Your task to perform on an android device: Open Wikipedia Image 0: 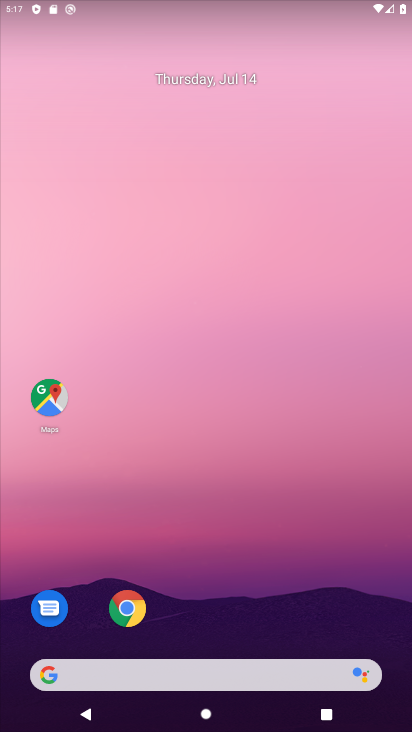
Step 0: click (131, 610)
Your task to perform on an android device: Open Wikipedia Image 1: 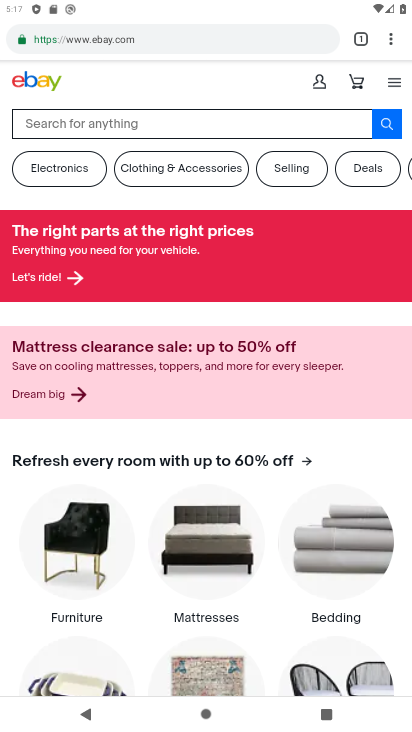
Step 1: click (236, 44)
Your task to perform on an android device: Open Wikipedia Image 2: 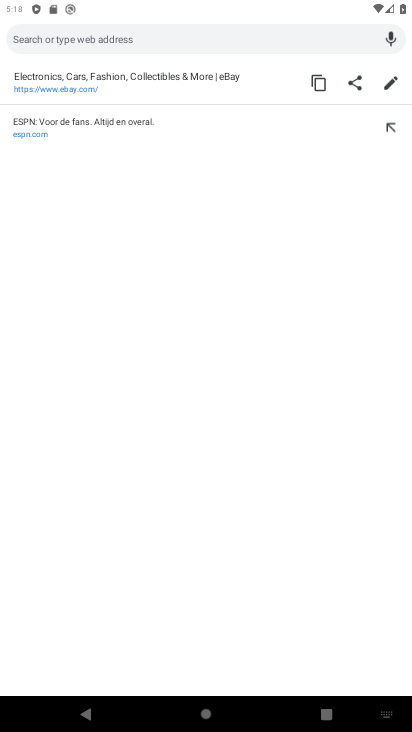
Step 2: type "Wikipedia"
Your task to perform on an android device: Open Wikipedia Image 3: 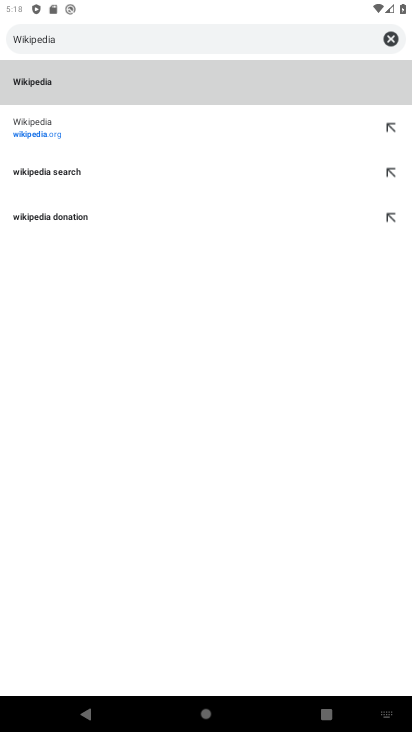
Step 3: click (41, 82)
Your task to perform on an android device: Open Wikipedia Image 4: 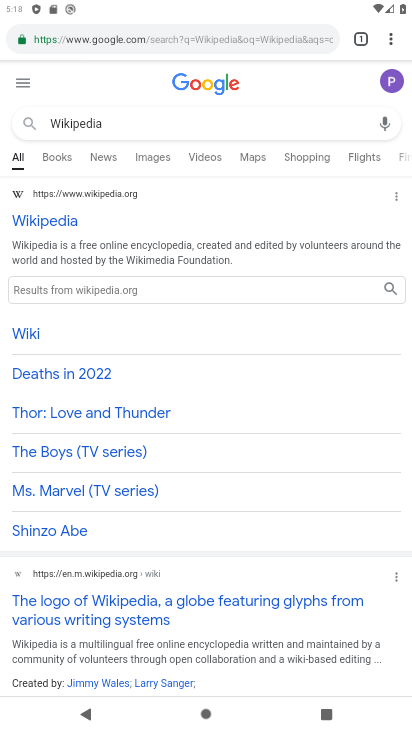
Step 4: click (71, 224)
Your task to perform on an android device: Open Wikipedia Image 5: 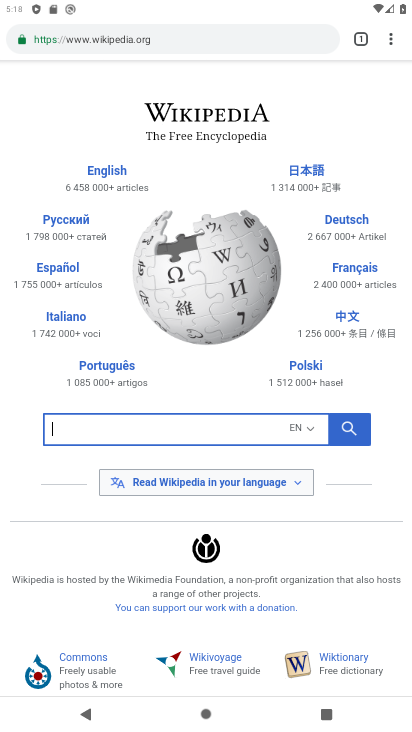
Step 5: task complete